Your task to perform on an android device: make emails show in primary in the gmail app Image 0: 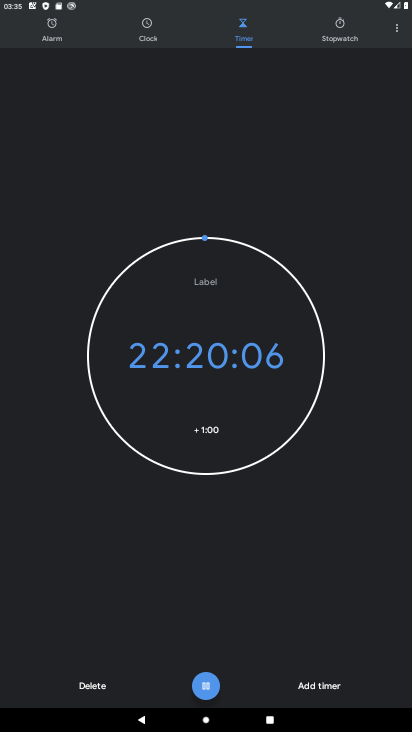
Step 0: press home button
Your task to perform on an android device: make emails show in primary in the gmail app Image 1: 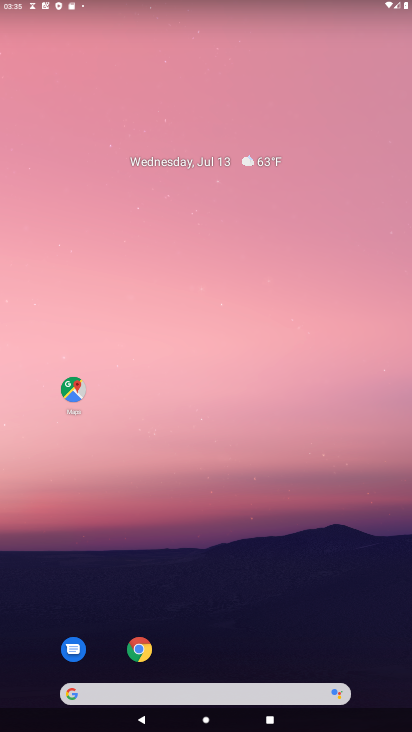
Step 1: drag from (288, 546) to (325, 65)
Your task to perform on an android device: make emails show in primary in the gmail app Image 2: 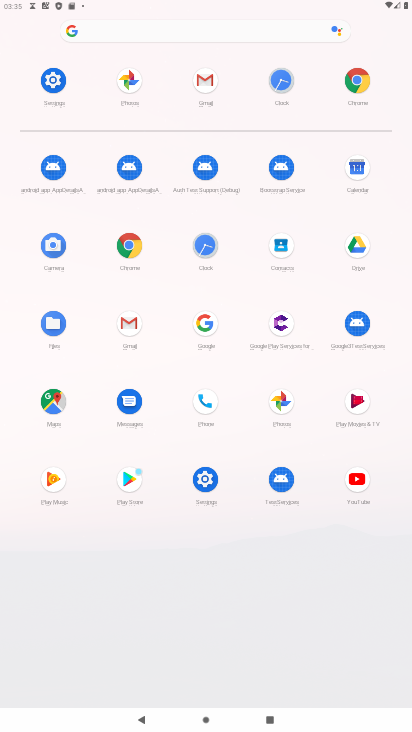
Step 2: click (199, 80)
Your task to perform on an android device: make emails show in primary in the gmail app Image 3: 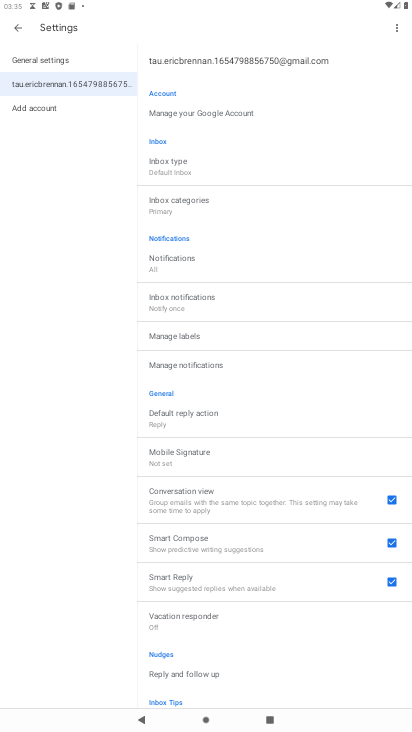
Step 3: click (172, 165)
Your task to perform on an android device: make emails show in primary in the gmail app Image 4: 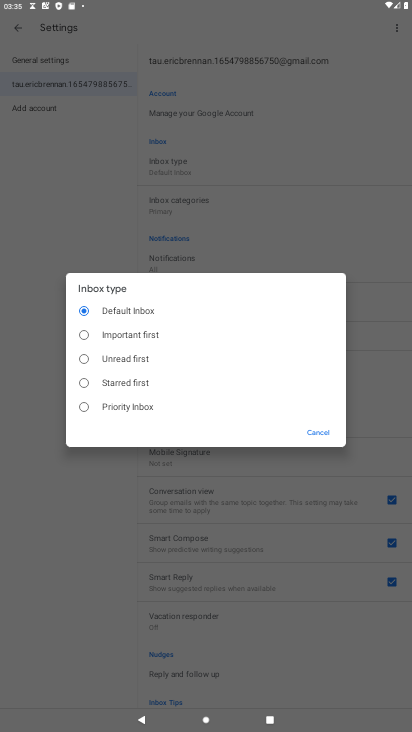
Step 4: click (124, 309)
Your task to perform on an android device: make emails show in primary in the gmail app Image 5: 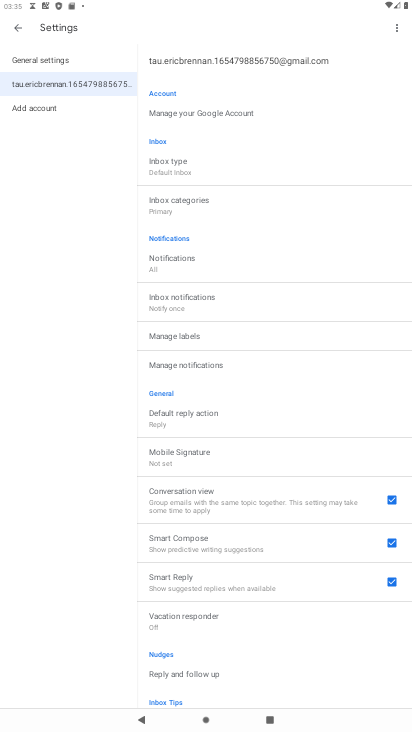
Step 5: task complete